Your task to perform on an android device: open chrome and create a bookmark for the current page Image 0: 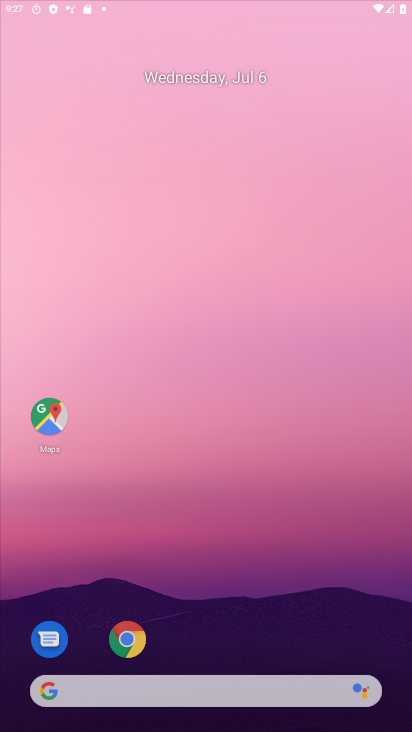
Step 0: press back button
Your task to perform on an android device: open chrome and create a bookmark for the current page Image 1: 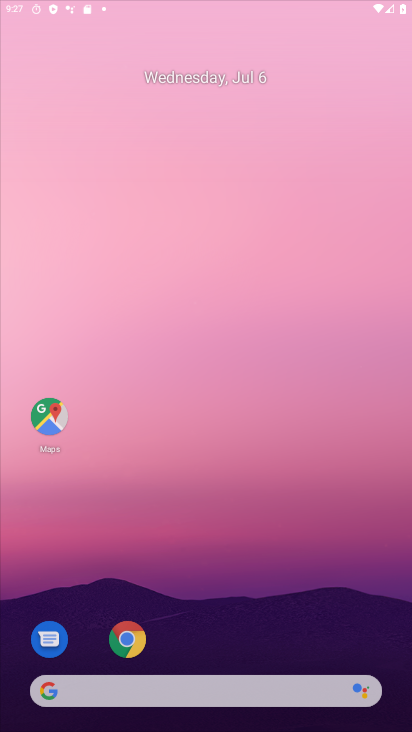
Step 1: click (163, 68)
Your task to perform on an android device: open chrome and create a bookmark for the current page Image 2: 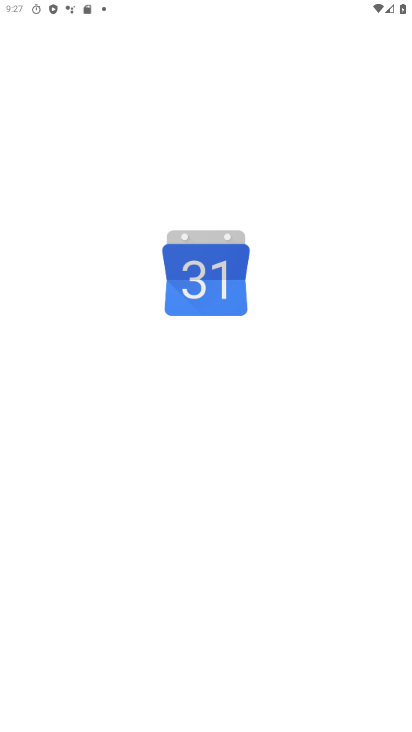
Step 2: drag from (183, 690) to (121, 109)
Your task to perform on an android device: open chrome and create a bookmark for the current page Image 3: 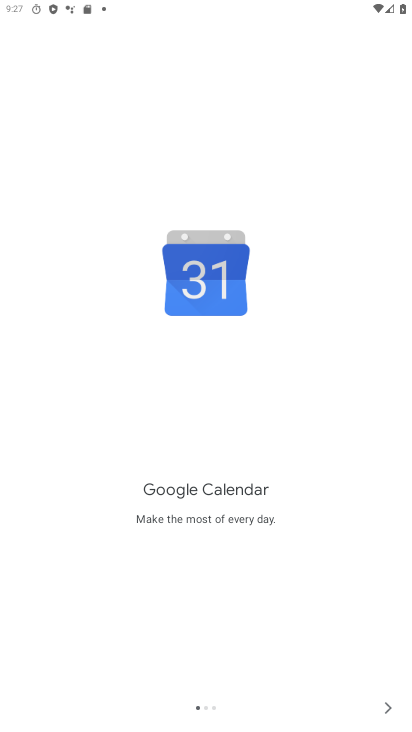
Step 3: press back button
Your task to perform on an android device: open chrome and create a bookmark for the current page Image 4: 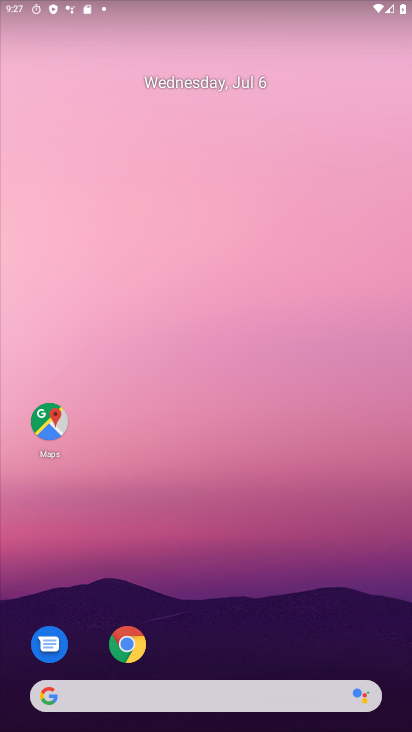
Step 4: drag from (304, 711) to (233, 202)
Your task to perform on an android device: open chrome and create a bookmark for the current page Image 5: 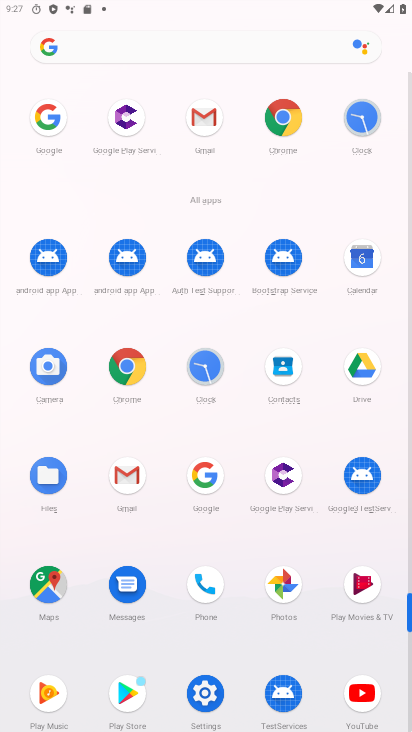
Step 5: click (290, 117)
Your task to perform on an android device: open chrome and create a bookmark for the current page Image 6: 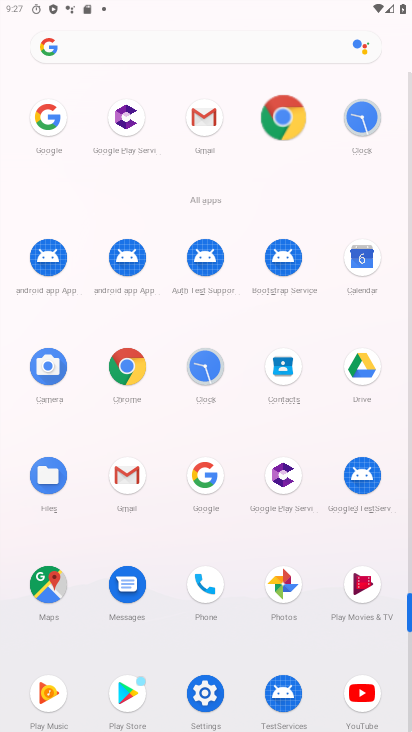
Step 6: click (290, 117)
Your task to perform on an android device: open chrome and create a bookmark for the current page Image 7: 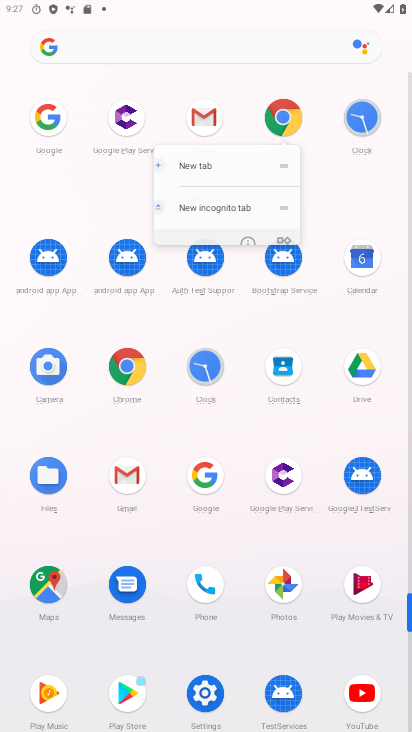
Step 7: click (289, 116)
Your task to perform on an android device: open chrome and create a bookmark for the current page Image 8: 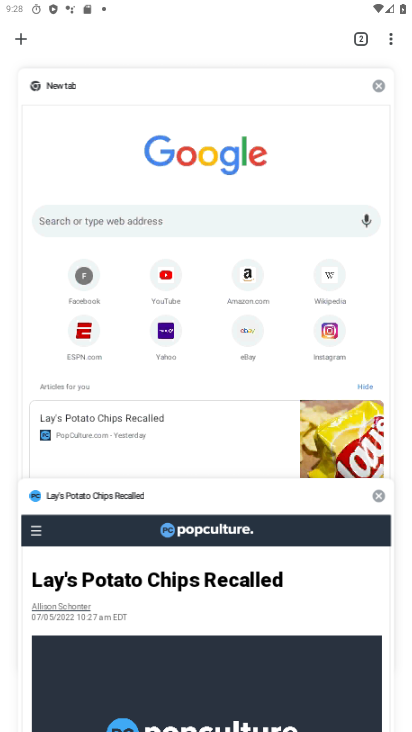
Step 8: click (88, 209)
Your task to perform on an android device: open chrome and create a bookmark for the current page Image 9: 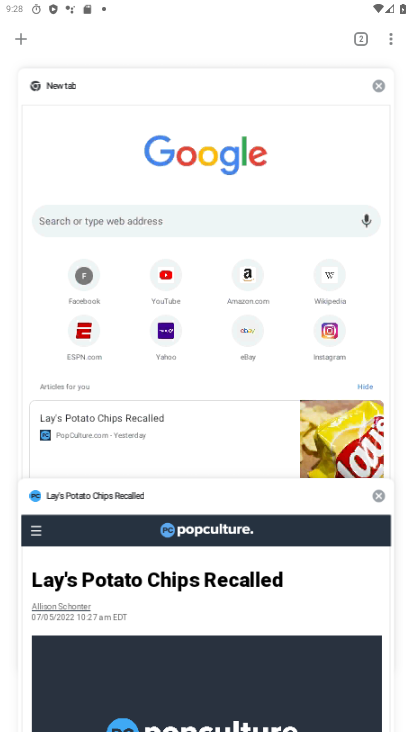
Step 9: click (85, 212)
Your task to perform on an android device: open chrome and create a bookmark for the current page Image 10: 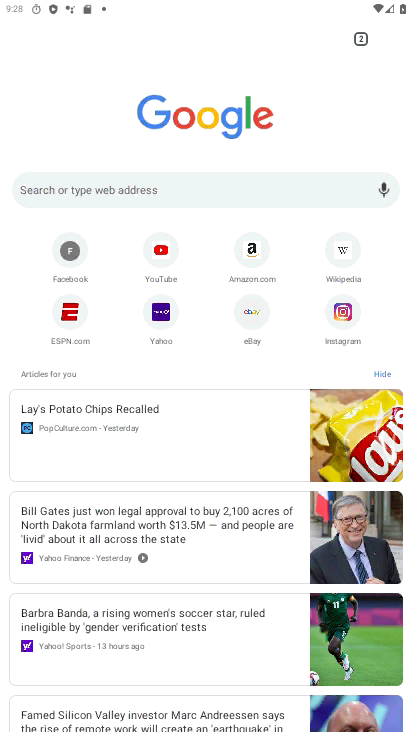
Step 10: click (86, 212)
Your task to perform on an android device: open chrome and create a bookmark for the current page Image 11: 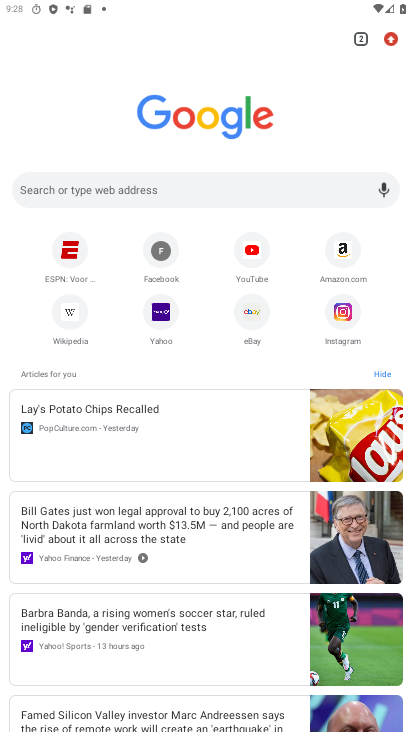
Step 11: click (90, 212)
Your task to perform on an android device: open chrome and create a bookmark for the current page Image 12: 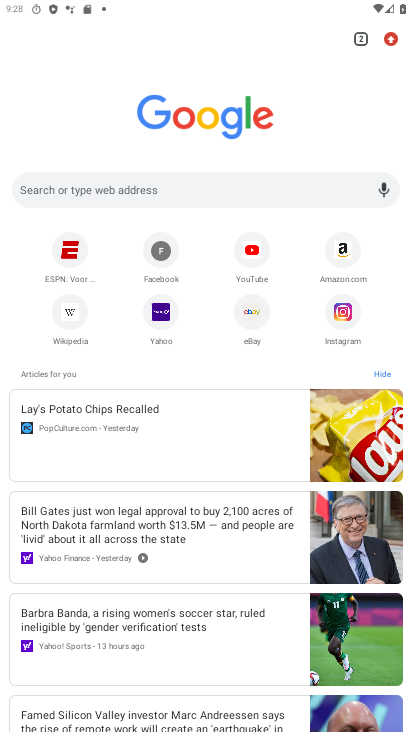
Step 12: click (79, 177)
Your task to perform on an android device: open chrome and create a bookmark for the current page Image 13: 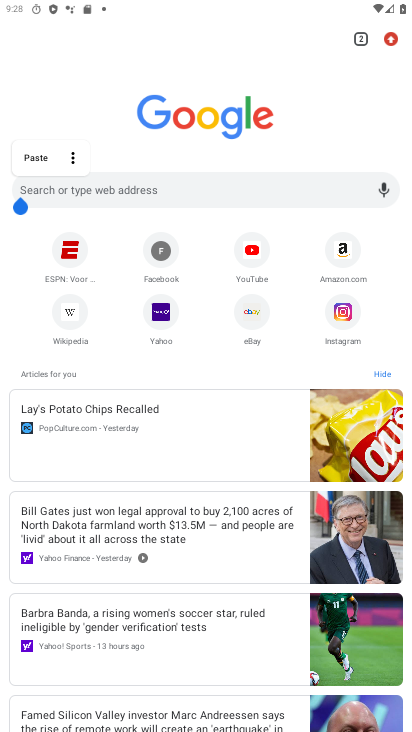
Step 13: click (95, 184)
Your task to perform on an android device: open chrome and create a bookmark for the current page Image 14: 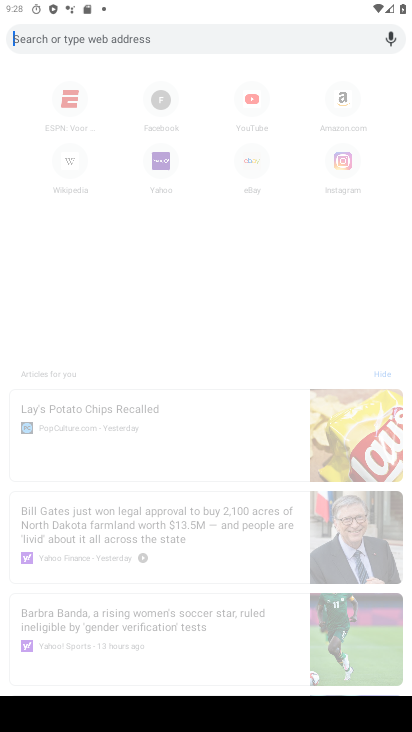
Step 14: type "www.shine.com"
Your task to perform on an android device: open chrome and create a bookmark for the current page Image 15: 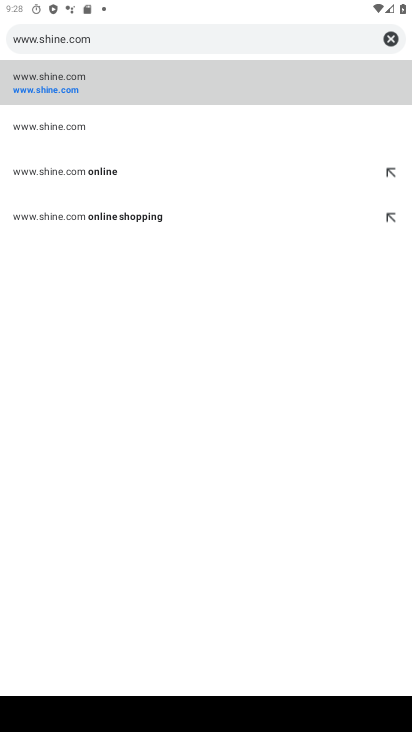
Step 15: click (62, 97)
Your task to perform on an android device: open chrome and create a bookmark for the current page Image 16: 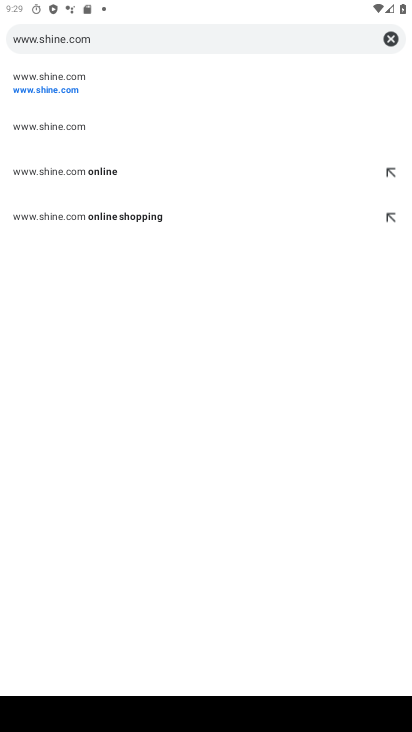
Step 16: click (55, 70)
Your task to perform on an android device: open chrome and create a bookmark for the current page Image 17: 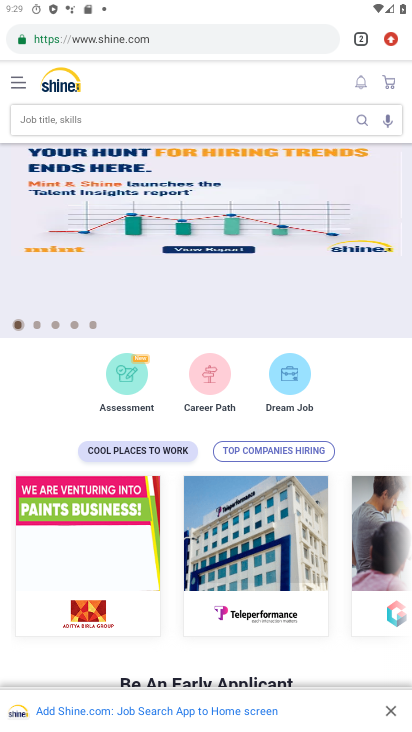
Step 17: drag from (389, 40) to (254, 189)
Your task to perform on an android device: open chrome and create a bookmark for the current page Image 18: 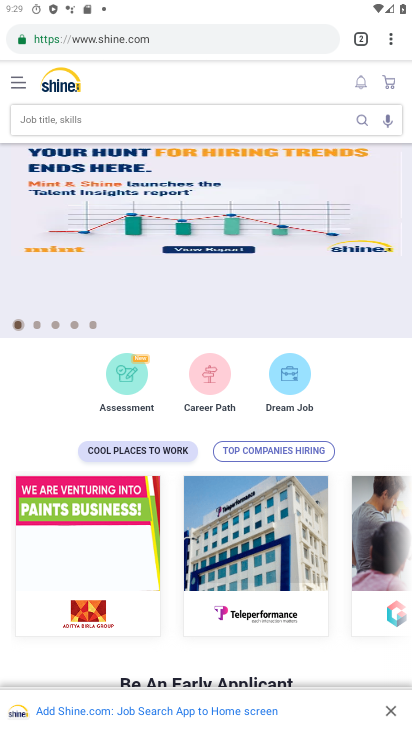
Step 18: click (259, 189)
Your task to perform on an android device: open chrome and create a bookmark for the current page Image 19: 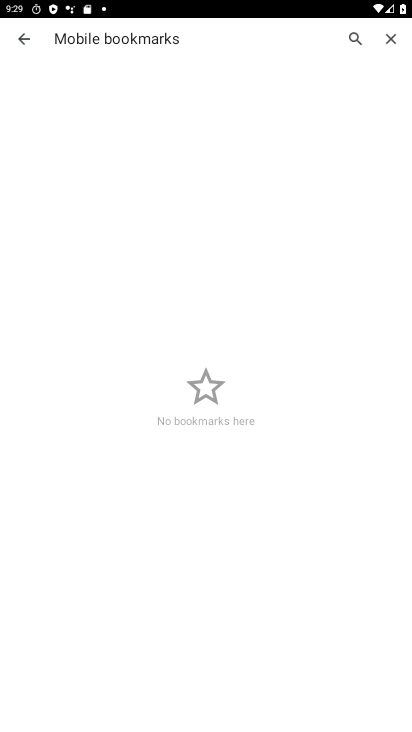
Step 19: task complete